Your task to perform on an android device: Clear the shopping cart on walmart. Add usb-c to the cart on walmart, then select checkout. Image 0: 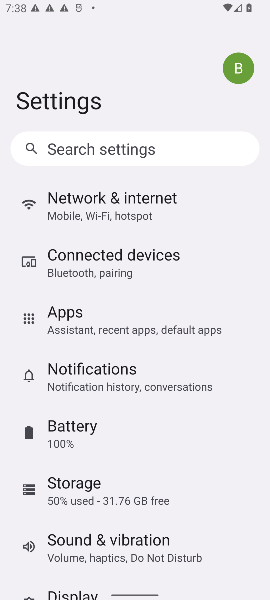
Step 0: press home button
Your task to perform on an android device: Clear the shopping cart on walmart. Add usb-c to the cart on walmart, then select checkout. Image 1: 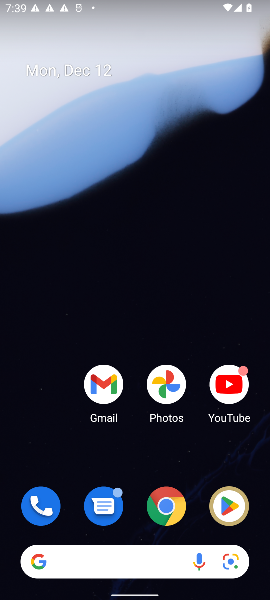
Step 1: click (114, 574)
Your task to perform on an android device: Clear the shopping cart on walmart. Add usb-c to the cart on walmart, then select checkout. Image 2: 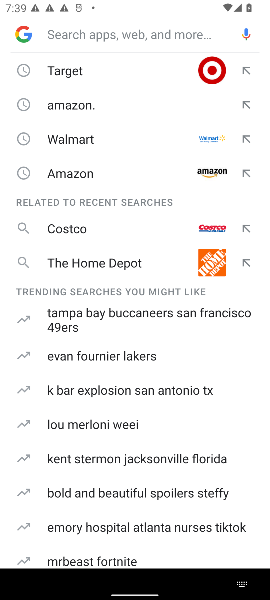
Step 2: click (89, 139)
Your task to perform on an android device: Clear the shopping cart on walmart. Add usb-c to the cart on walmart, then select checkout. Image 3: 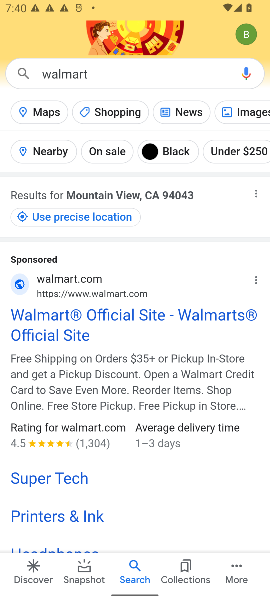
Step 3: click (88, 305)
Your task to perform on an android device: Clear the shopping cart on walmart. Add usb-c to the cart on walmart, then select checkout. Image 4: 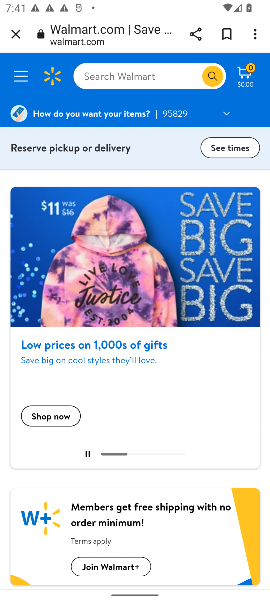
Step 4: click (112, 69)
Your task to perform on an android device: Clear the shopping cart on walmart. Add usb-c to the cart on walmart, then select checkout. Image 5: 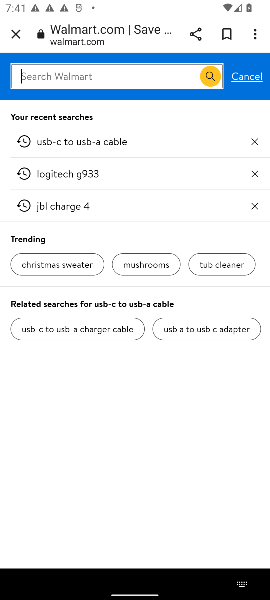
Step 5: type "usb-c to "
Your task to perform on an android device: Clear the shopping cart on walmart. Add usb-c to the cart on walmart, then select checkout. Image 6: 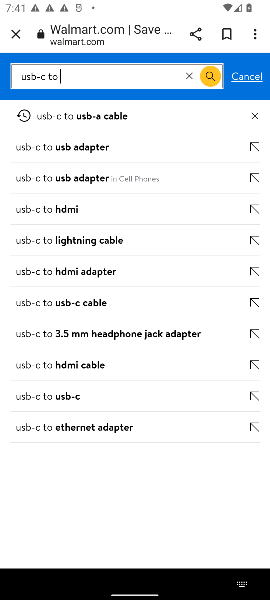
Step 6: click (93, 393)
Your task to perform on an android device: Clear the shopping cart on walmart. Add usb-c to the cart on walmart, then select checkout. Image 7: 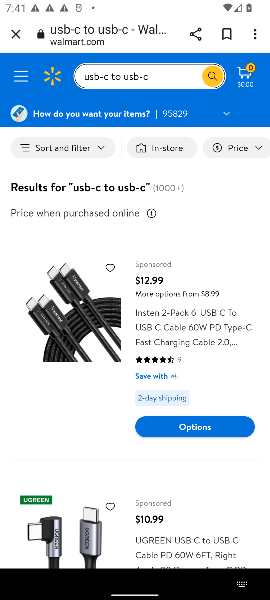
Step 7: click (216, 435)
Your task to perform on an android device: Clear the shopping cart on walmart. Add usb-c to the cart on walmart, then select checkout. Image 8: 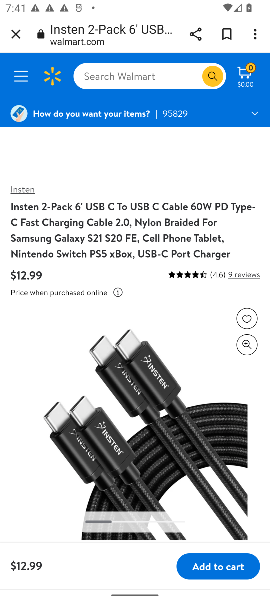
Step 8: click (211, 566)
Your task to perform on an android device: Clear the shopping cart on walmart. Add usb-c to the cart on walmart, then select checkout. Image 9: 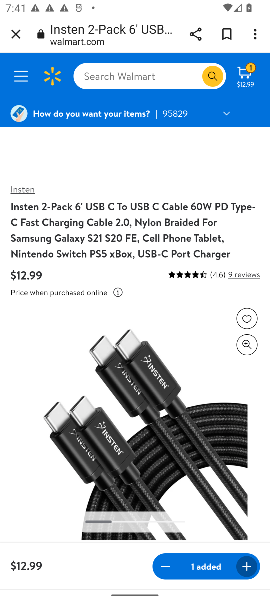
Step 9: task complete